Your task to perform on an android device: check battery use Image 0: 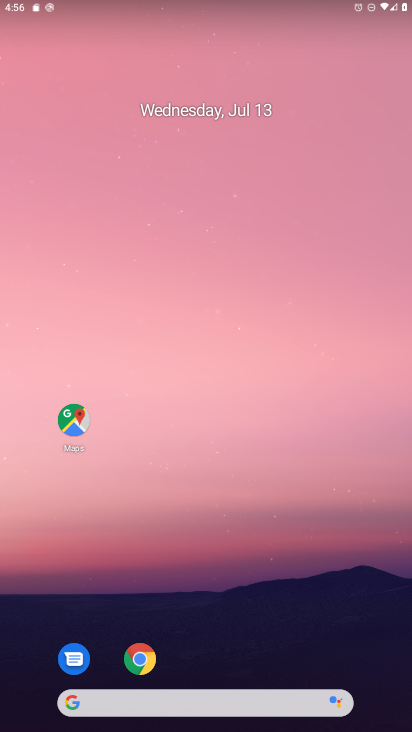
Step 0: drag from (321, 600) to (293, 155)
Your task to perform on an android device: check battery use Image 1: 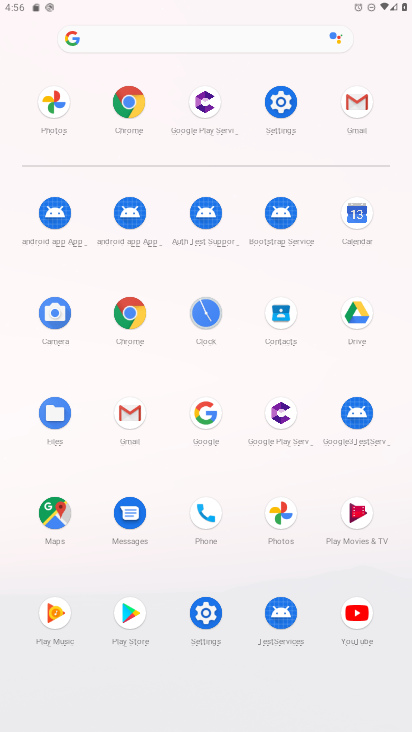
Step 1: click (289, 97)
Your task to perform on an android device: check battery use Image 2: 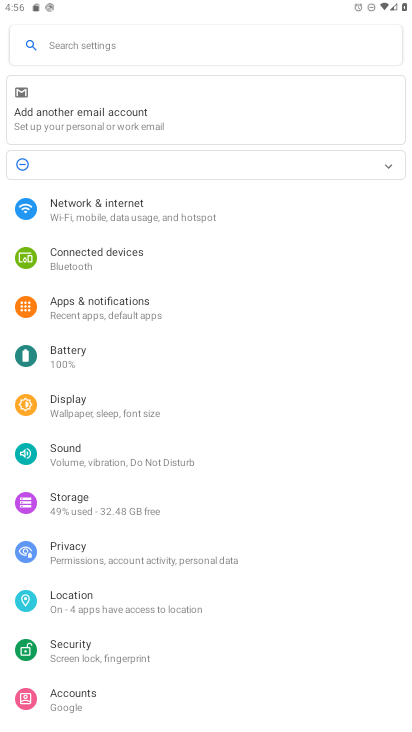
Step 2: click (65, 361)
Your task to perform on an android device: check battery use Image 3: 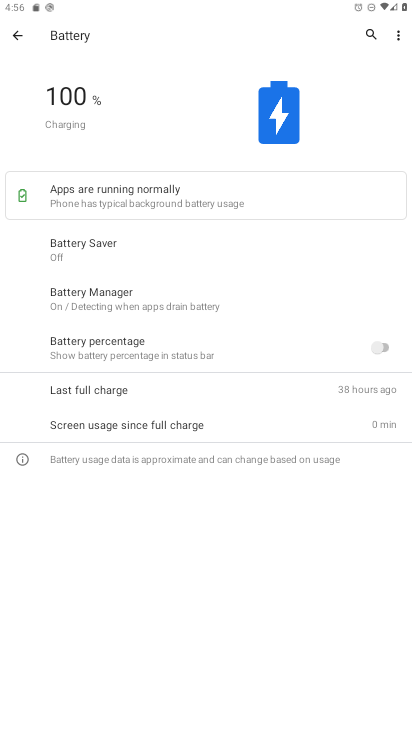
Step 3: click (402, 34)
Your task to perform on an android device: check battery use Image 4: 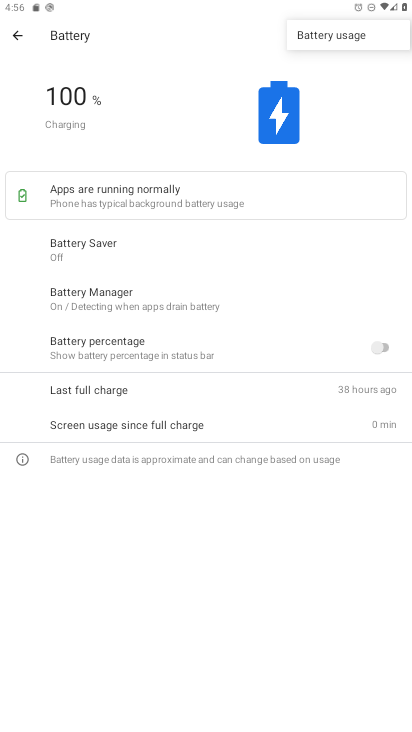
Step 4: click (371, 34)
Your task to perform on an android device: check battery use Image 5: 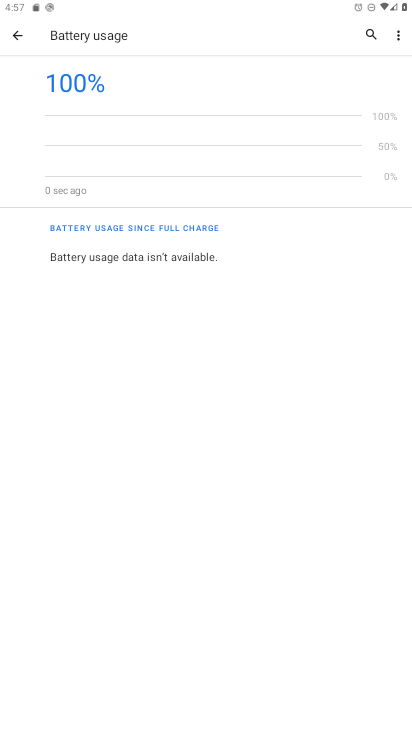
Step 5: task complete